Your task to perform on an android device: Look up the best rated kitchen knives on Amazon. Image 0: 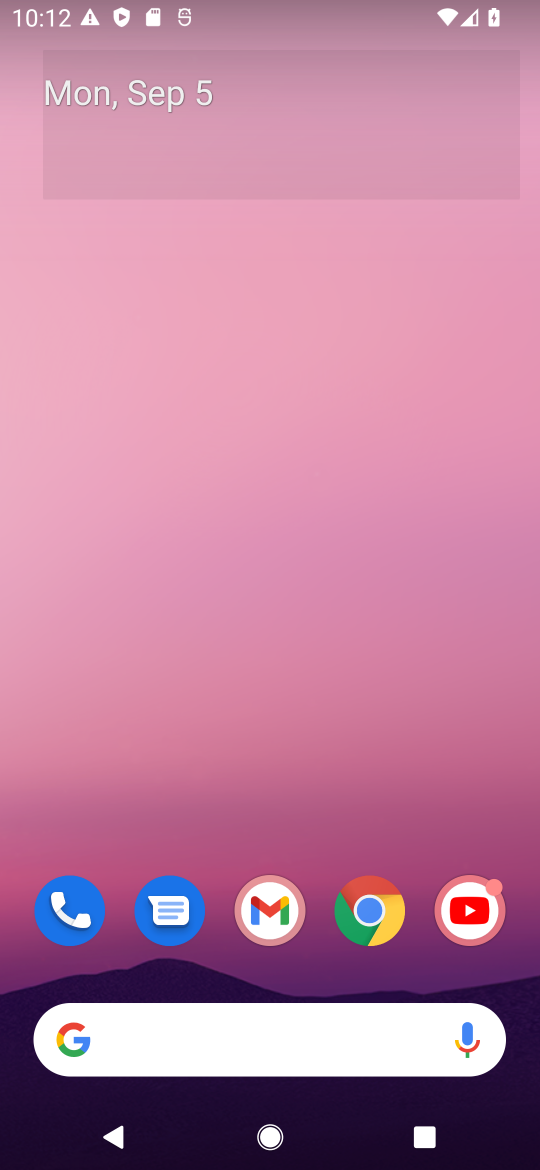
Step 0: click (385, 885)
Your task to perform on an android device: Look up the best rated kitchen knives on Amazon. Image 1: 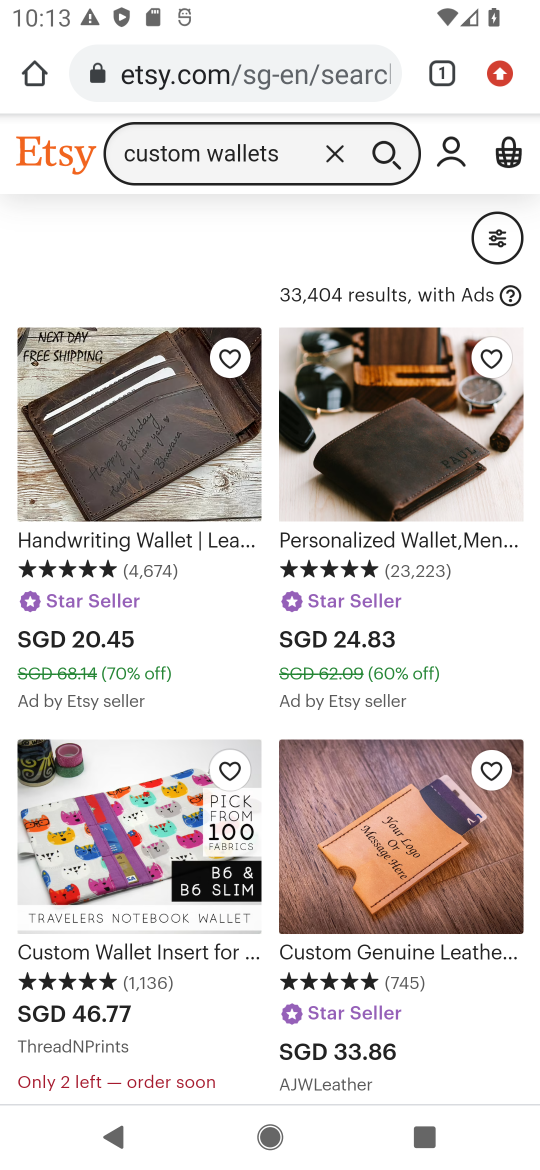
Step 1: click (280, 71)
Your task to perform on an android device: Look up the best rated kitchen knives on Amazon. Image 2: 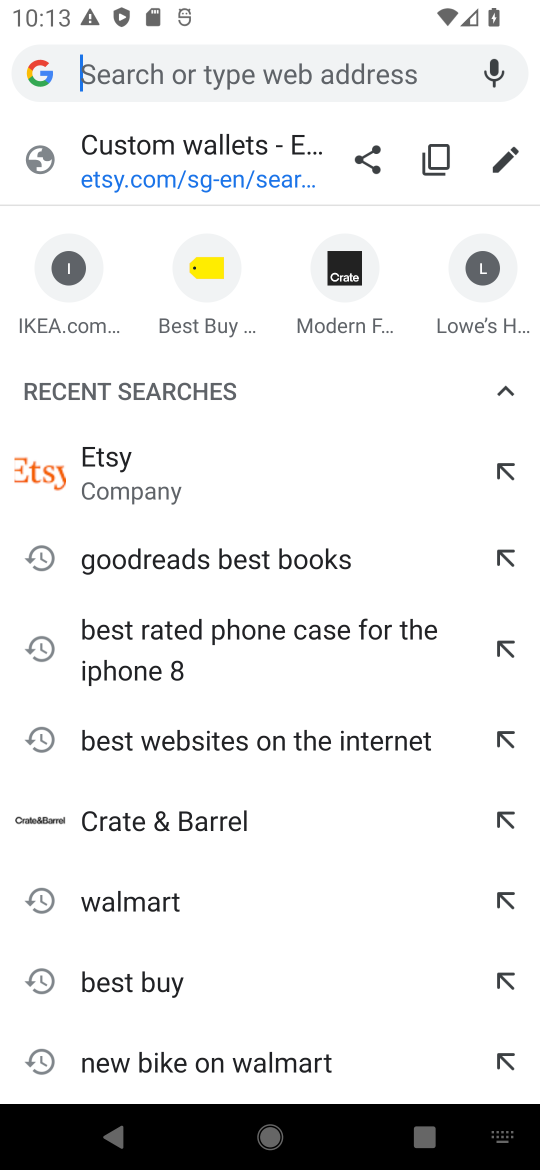
Step 2: drag from (287, 70) to (488, 273)
Your task to perform on an android device: Look up the best rated kitchen knives on Amazon. Image 3: 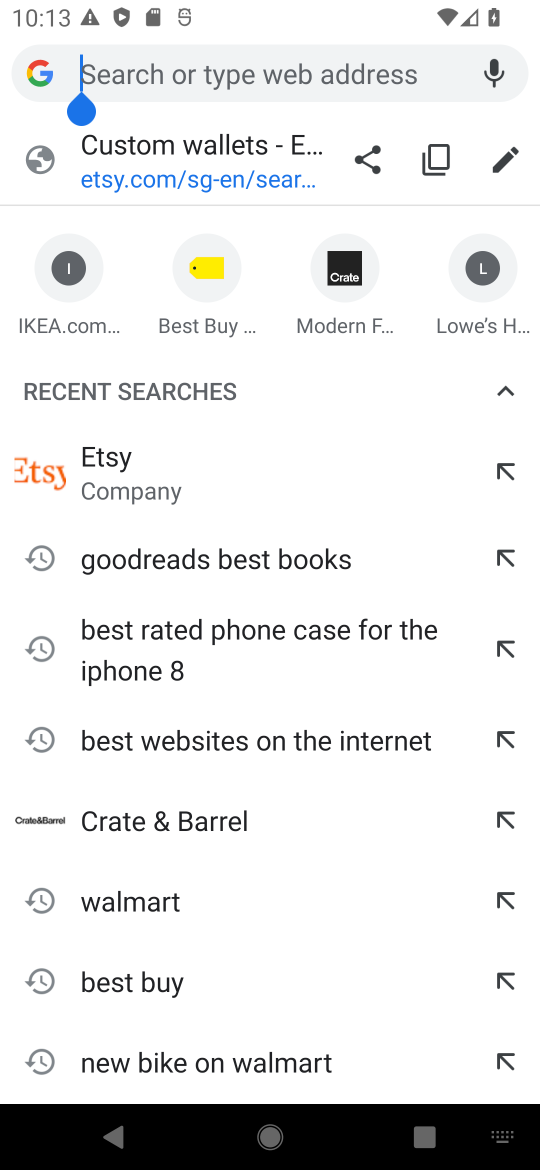
Step 3: type "amazon"
Your task to perform on an android device: Look up the best rated kitchen knives on Amazon. Image 4: 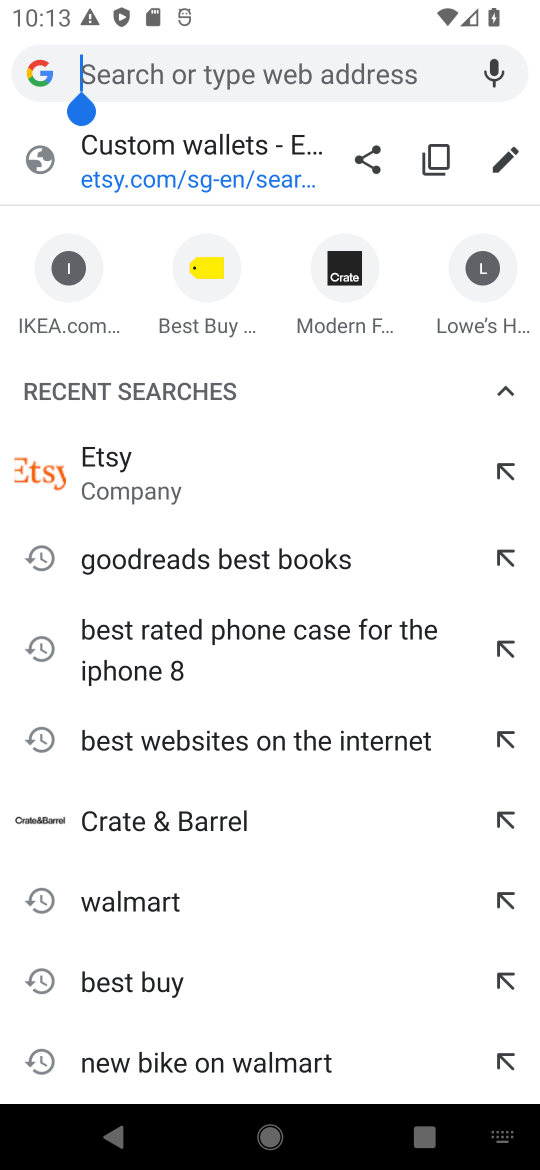
Step 4: drag from (488, 273) to (339, 123)
Your task to perform on an android device: Look up the best rated kitchen knives on Amazon. Image 5: 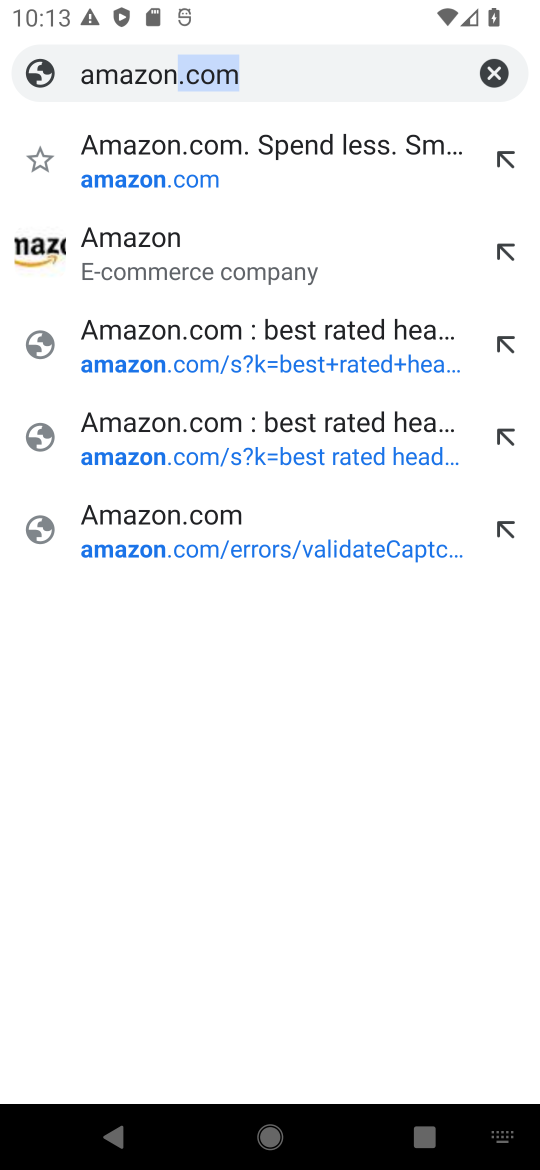
Step 5: click (198, 141)
Your task to perform on an android device: Look up the best rated kitchen knives on Amazon. Image 6: 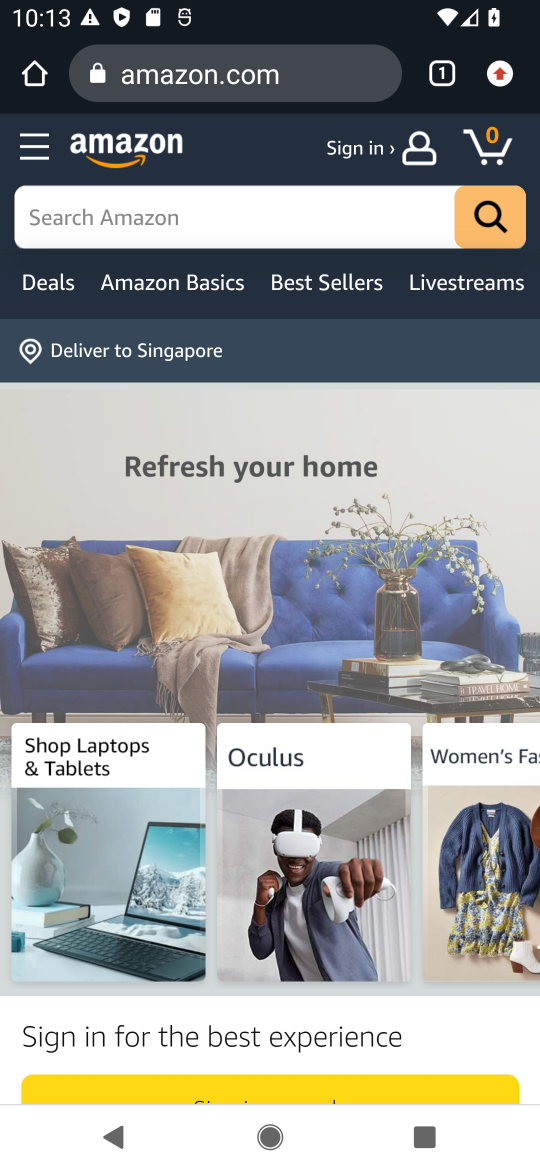
Step 6: click (279, 205)
Your task to perform on an android device: Look up the best rated kitchen knives on Amazon. Image 7: 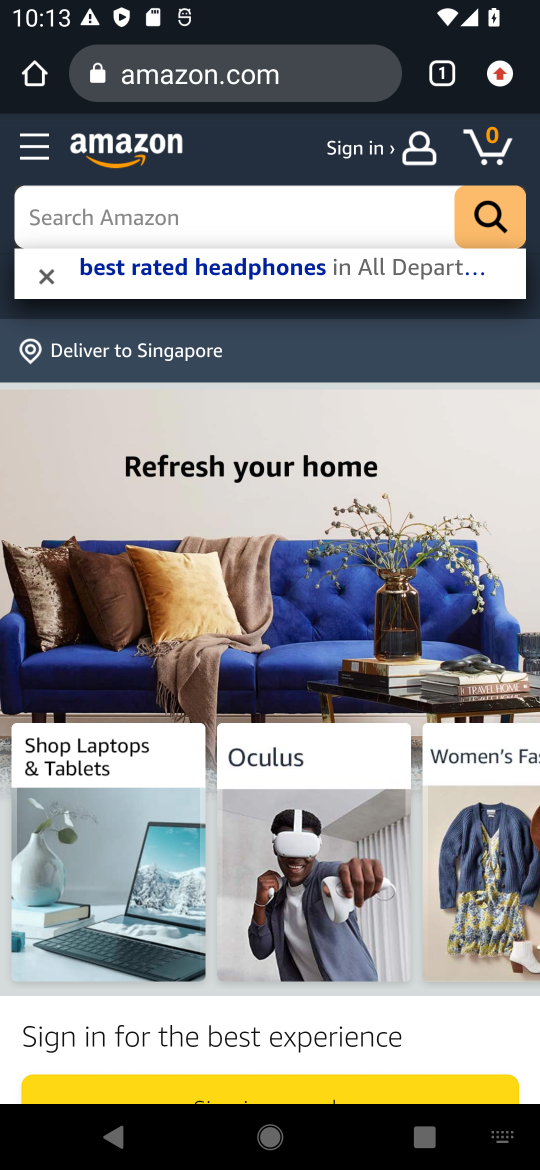
Step 7: type "best rated kotchen knives"
Your task to perform on an android device: Look up the best rated kitchen knives on Amazon. Image 8: 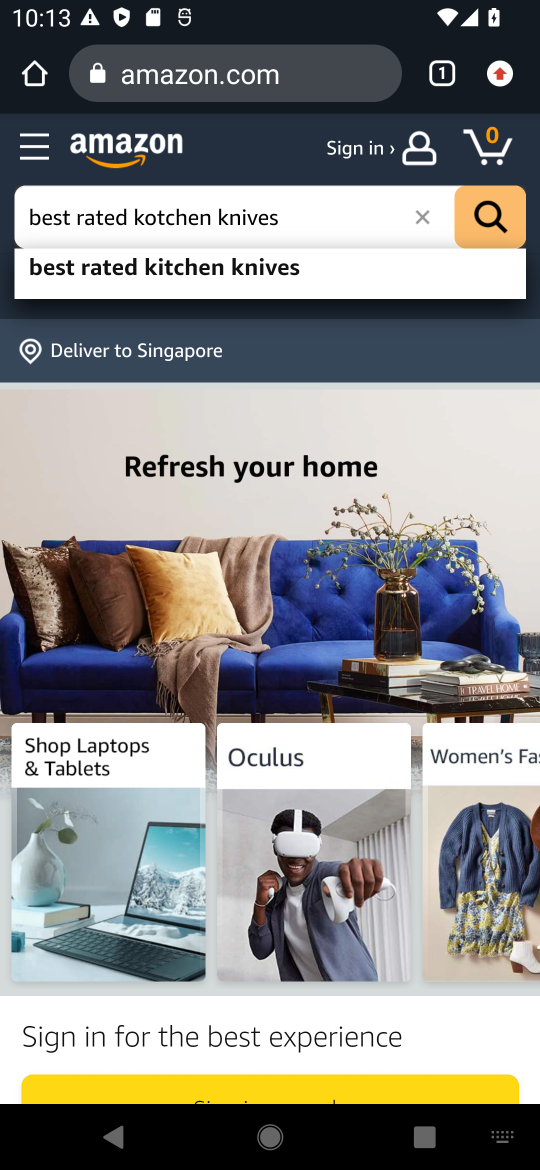
Step 8: click (240, 267)
Your task to perform on an android device: Look up the best rated kitchen knives on Amazon. Image 9: 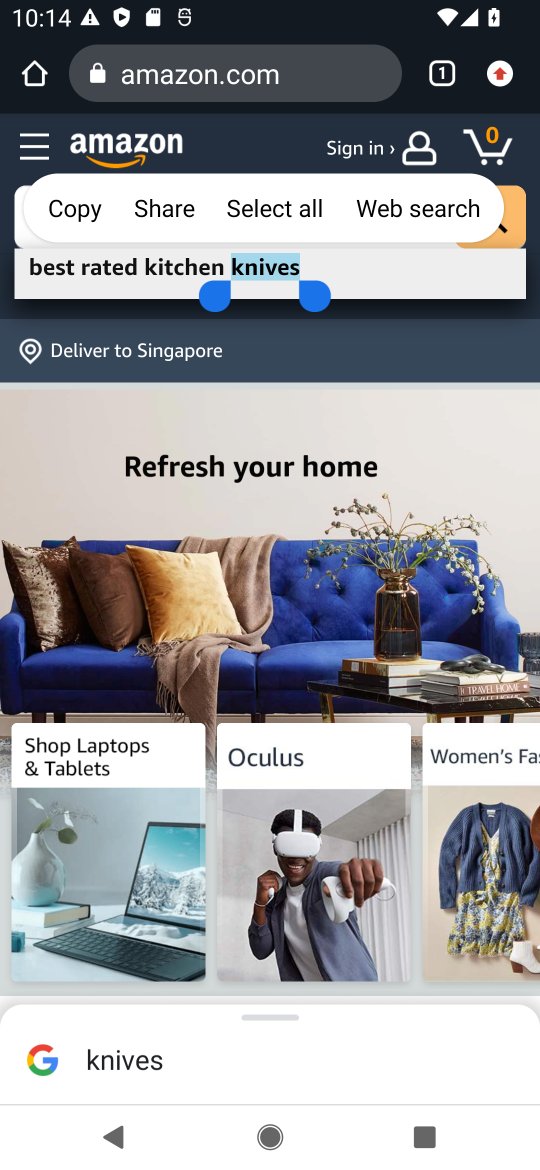
Step 9: click (403, 308)
Your task to perform on an android device: Look up the best rated kitchen knives on Amazon. Image 10: 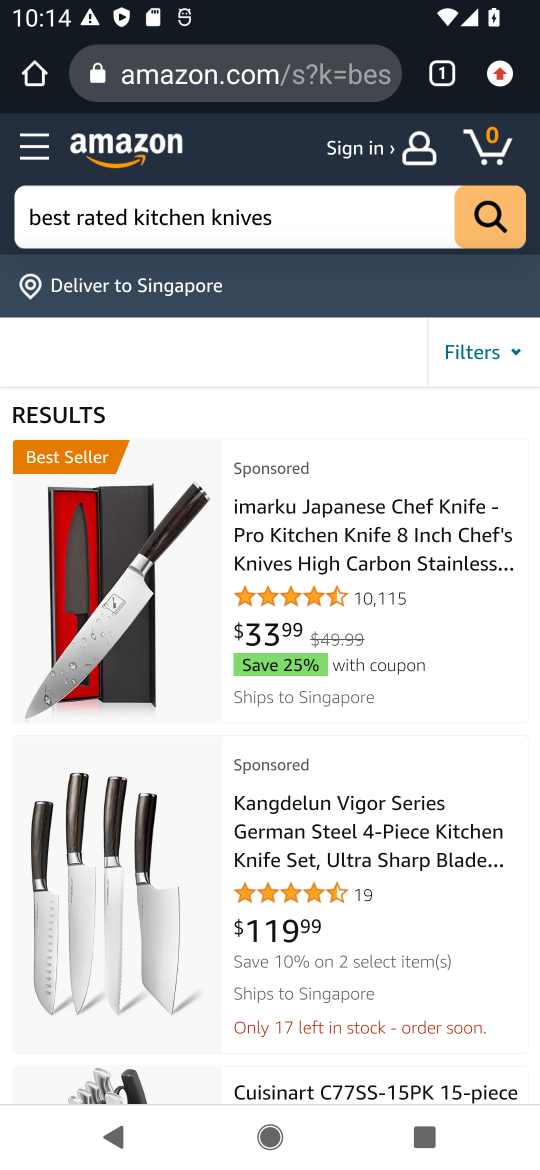
Step 10: task complete